Your task to perform on an android device: Open Chrome and go to settings Image 0: 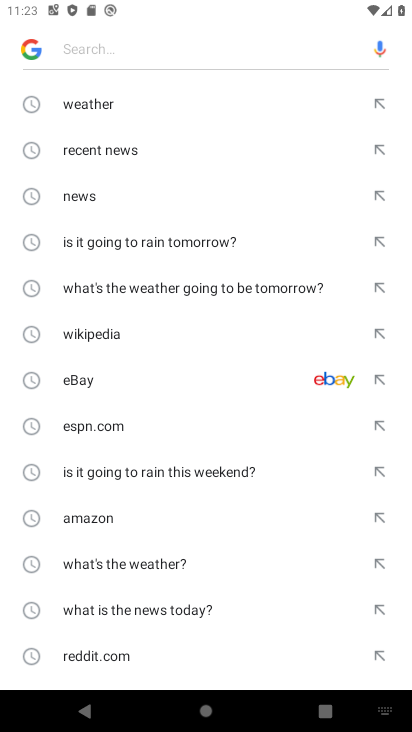
Step 0: press home button
Your task to perform on an android device: Open Chrome and go to settings Image 1: 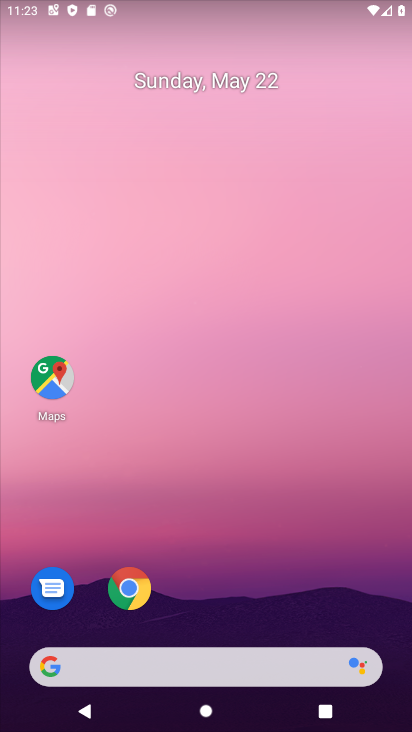
Step 1: click (131, 589)
Your task to perform on an android device: Open Chrome and go to settings Image 2: 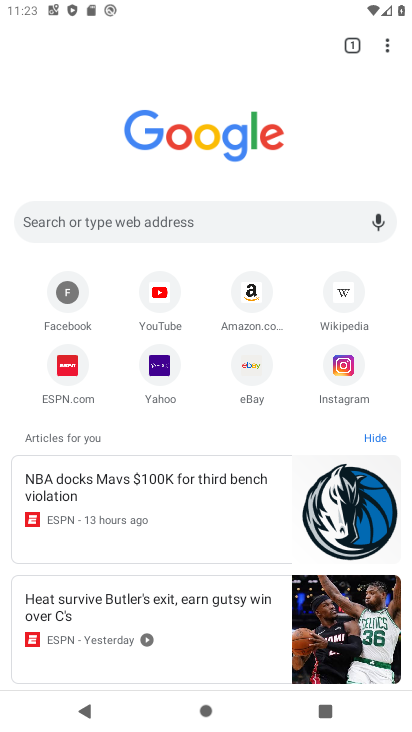
Step 2: click (249, 365)
Your task to perform on an android device: Open Chrome and go to settings Image 3: 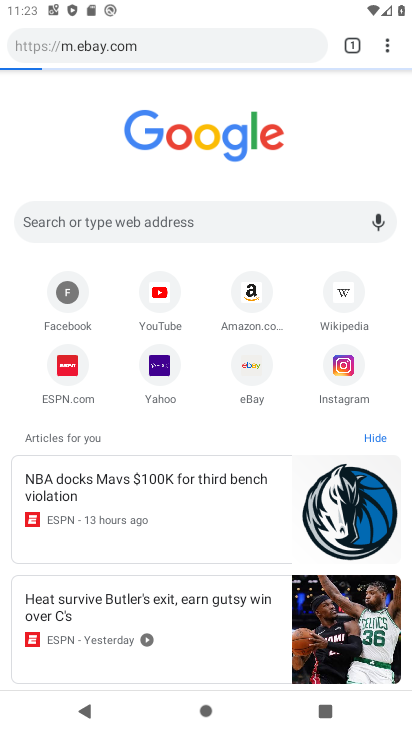
Step 3: click (249, 365)
Your task to perform on an android device: Open Chrome and go to settings Image 4: 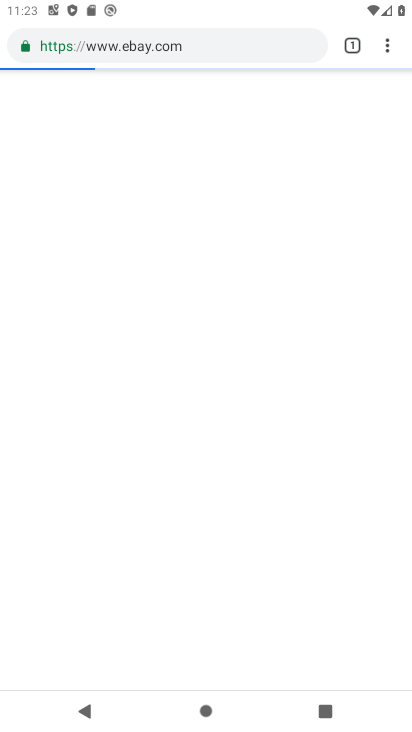
Step 4: click (249, 365)
Your task to perform on an android device: Open Chrome and go to settings Image 5: 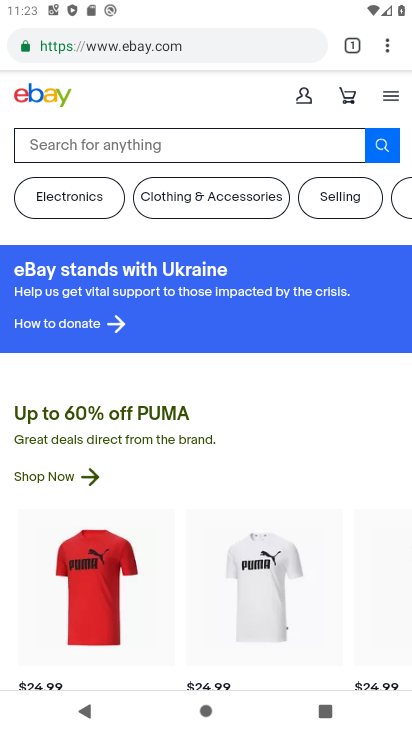
Step 5: task complete